Your task to perform on an android device: turn on airplane mode Image 0: 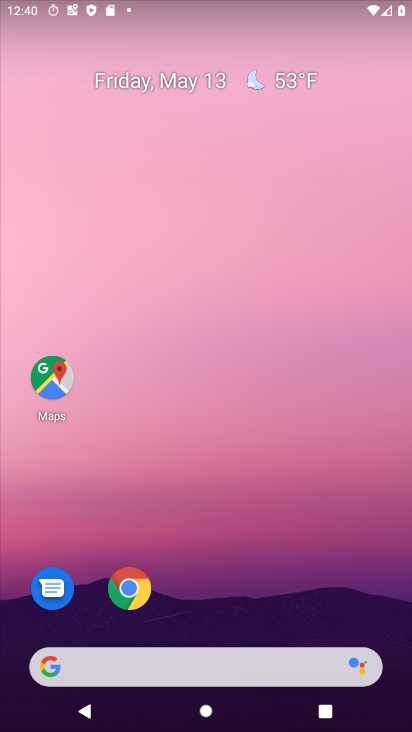
Step 0: drag from (290, 359) to (307, 183)
Your task to perform on an android device: turn on airplane mode Image 1: 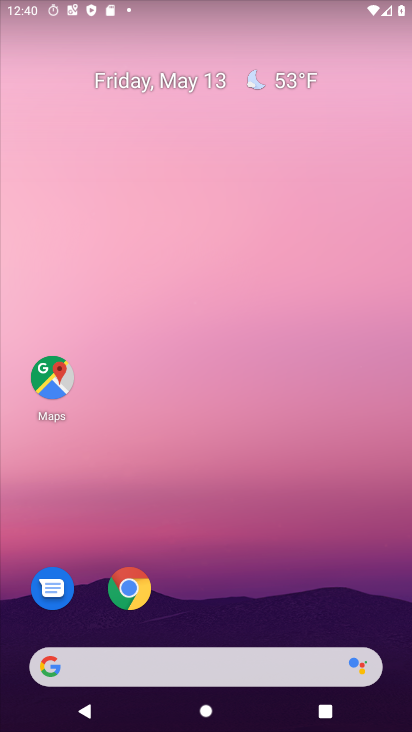
Step 1: drag from (259, 577) to (309, 394)
Your task to perform on an android device: turn on airplane mode Image 2: 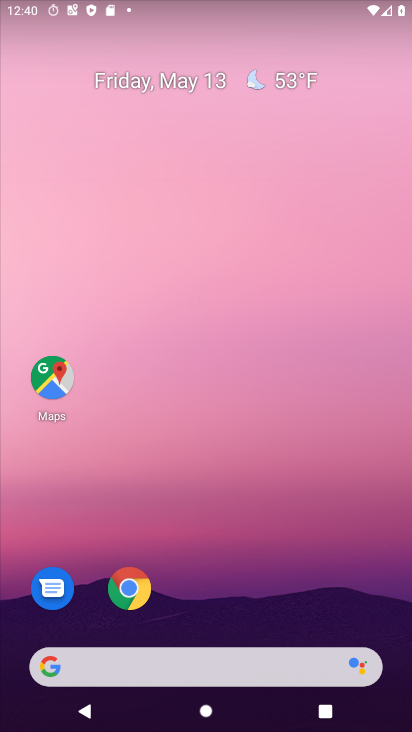
Step 2: drag from (319, 18) to (356, 567)
Your task to perform on an android device: turn on airplane mode Image 3: 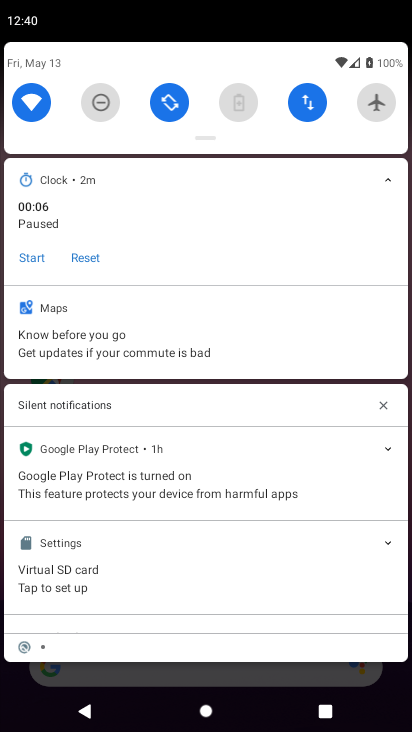
Step 3: click (385, 99)
Your task to perform on an android device: turn on airplane mode Image 4: 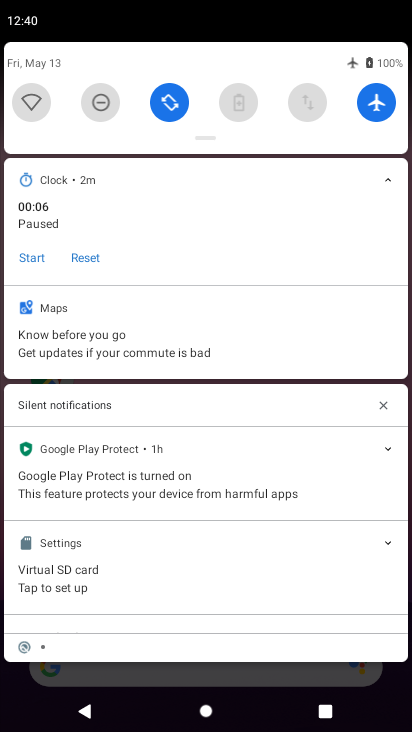
Step 4: task complete